Your task to perform on an android device: Go to network settings Image 0: 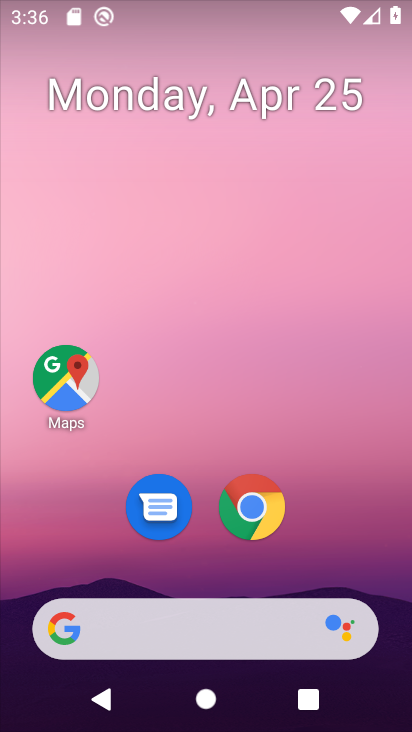
Step 0: drag from (106, 601) to (171, 386)
Your task to perform on an android device: Go to network settings Image 1: 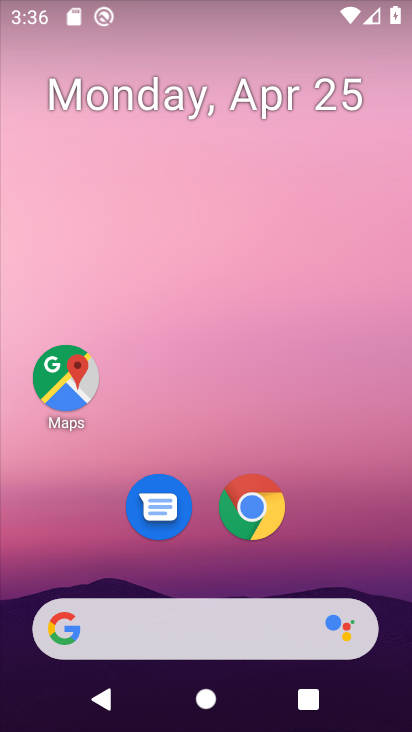
Step 1: drag from (175, 535) to (304, 0)
Your task to perform on an android device: Go to network settings Image 2: 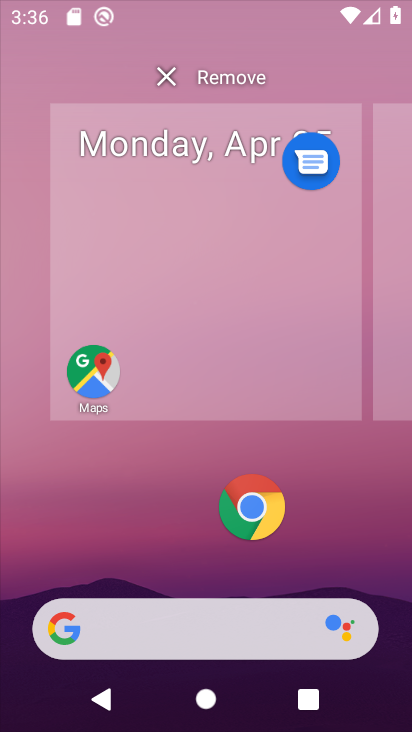
Step 2: drag from (190, 345) to (228, 58)
Your task to perform on an android device: Go to network settings Image 3: 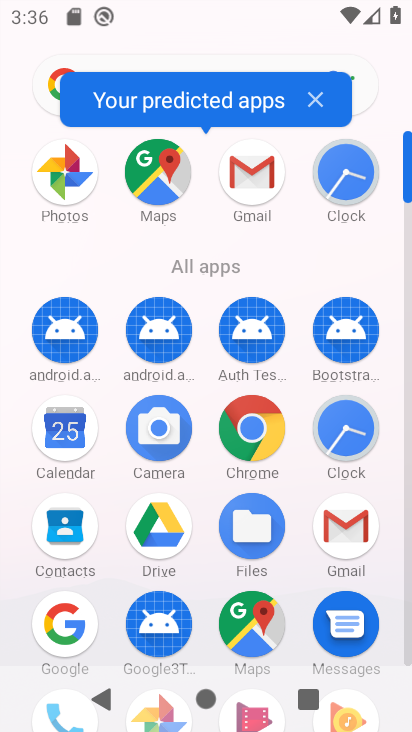
Step 3: drag from (177, 611) to (225, 232)
Your task to perform on an android device: Go to network settings Image 4: 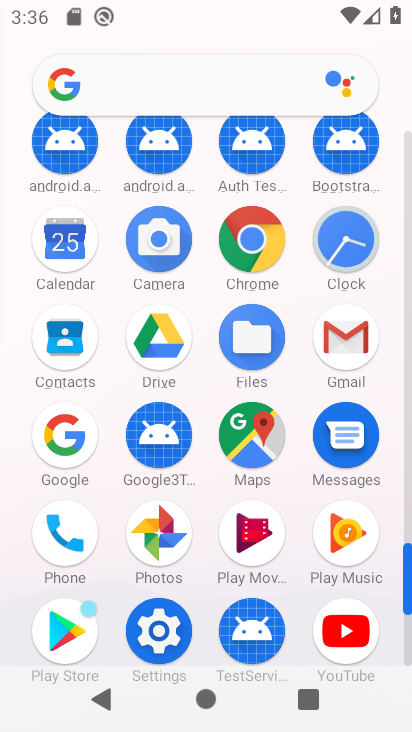
Step 4: click (141, 654)
Your task to perform on an android device: Go to network settings Image 5: 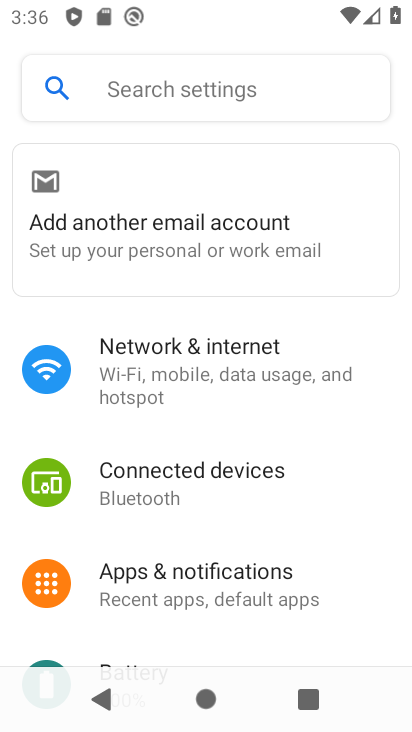
Step 5: click (243, 388)
Your task to perform on an android device: Go to network settings Image 6: 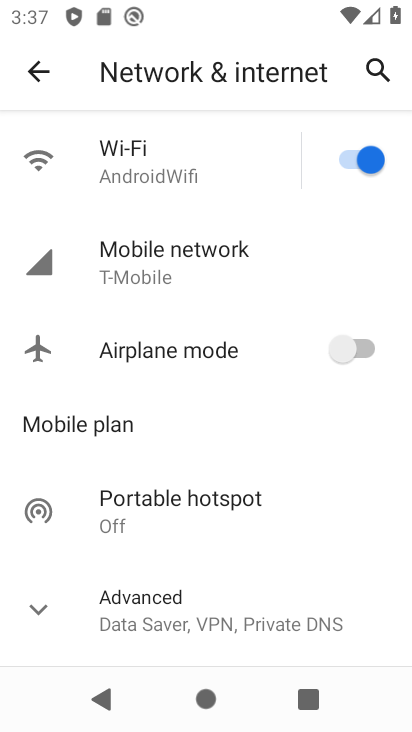
Step 6: click (209, 272)
Your task to perform on an android device: Go to network settings Image 7: 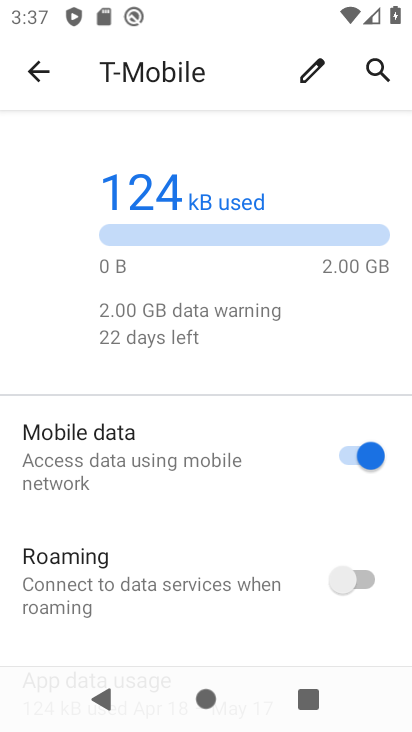
Step 7: task complete